Your task to perform on an android device: Go to accessibility settings Image 0: 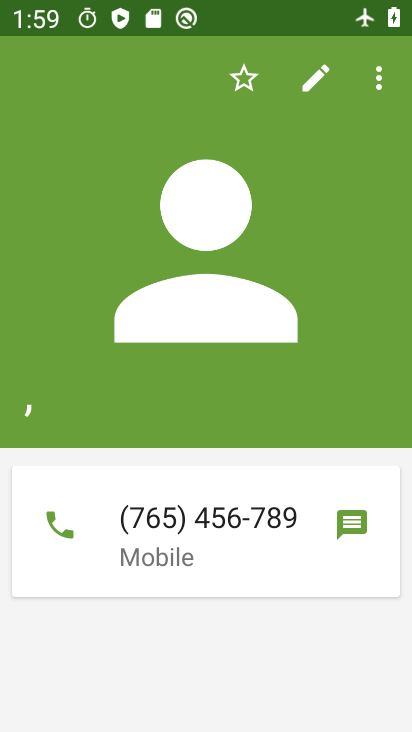
Step 0: press home button
Your task to perform on an android device: Go to accessibility settings Image 1: 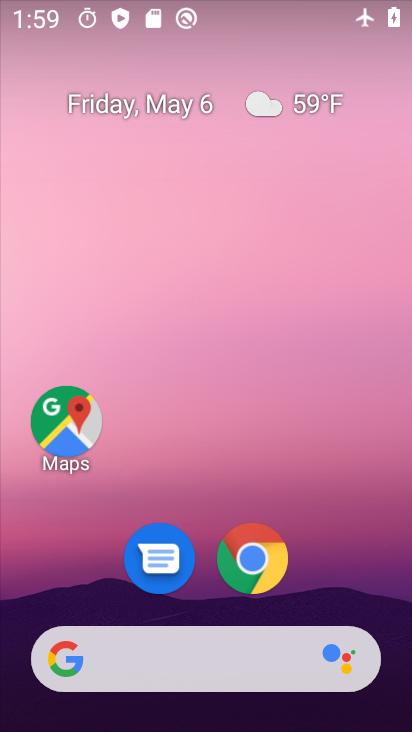
Step 1: drag from (210, 729) to (182, 222)
Your task to perform on an android device: Go to accessibility settings Image 2: 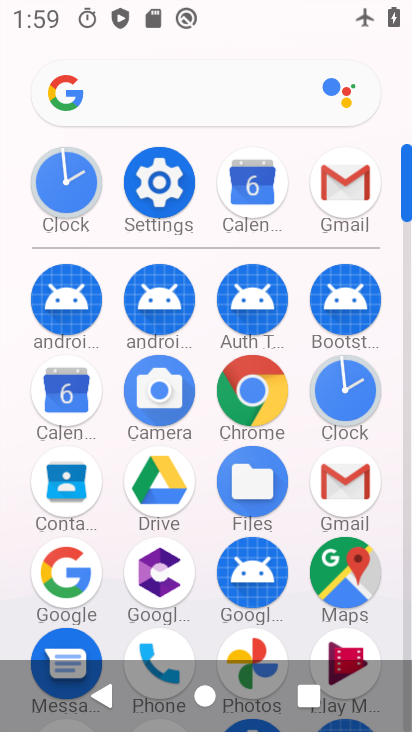
Step 2: click (171, 177)
Your task to perform on an android device: Go to accessibility settings Image 3: 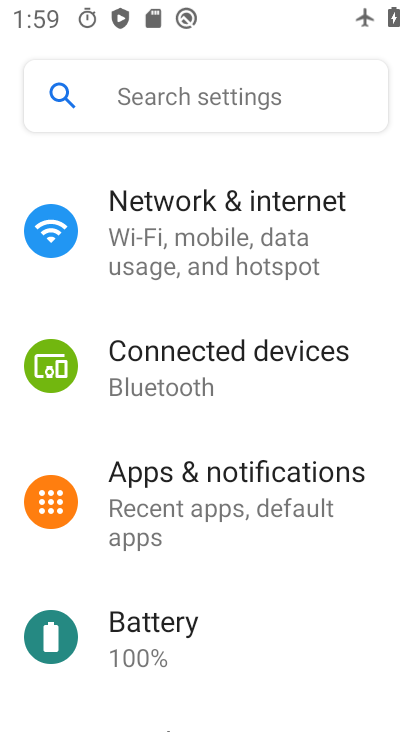
Step 3: drag from (170, 671) to (156, 339)
Your task to perform on an android device: Go to accessibility settings Image 4: 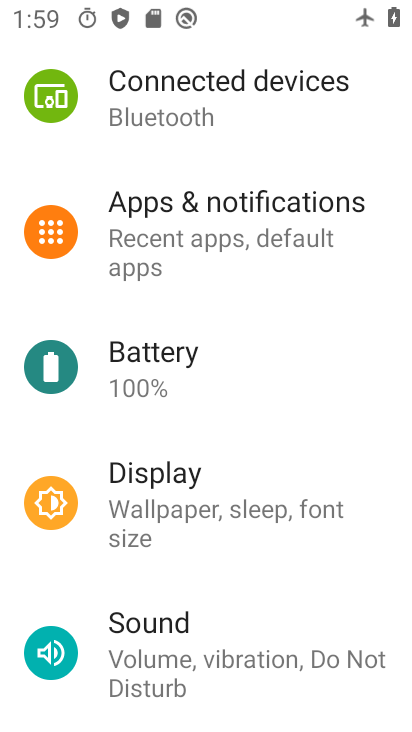
Step 4: drag from (187, 692) to (182, 346)
Your task to perform on an android device: Go to accessibility settings Image 5: 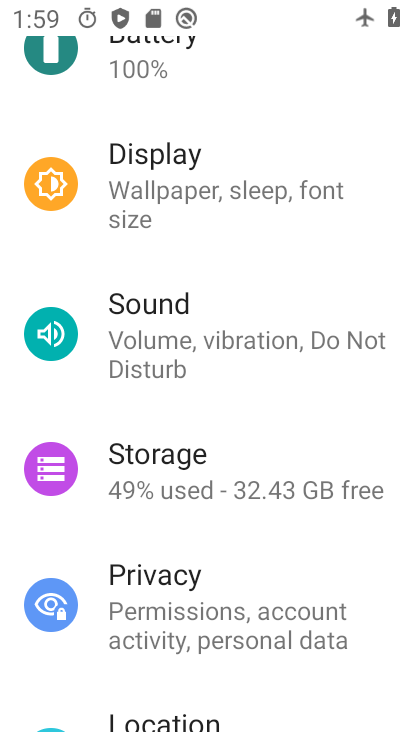
Step 5: drag from (188, 676) to (177, 319)
Your task to perform on an android device: Go to accessibility settings Image 6: 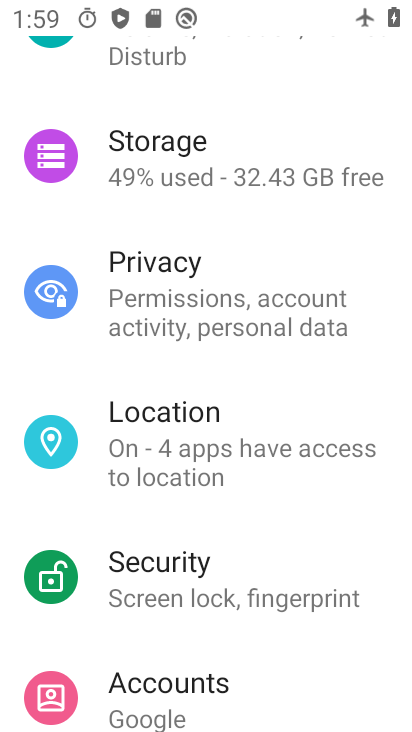
Step 6: drag from (184, 648) to (173, 326)
Your task to perform on an android device: Go to accessibility settings Image 7: 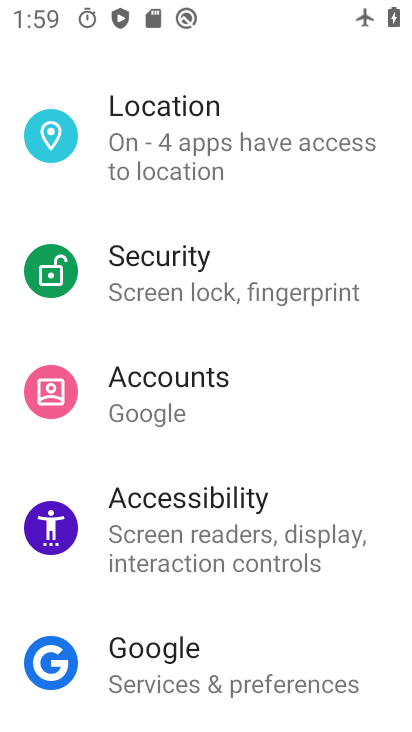
Step 7: click (185, 561)
Your task to perform on an android device: Go to accessibility settings Image 8: 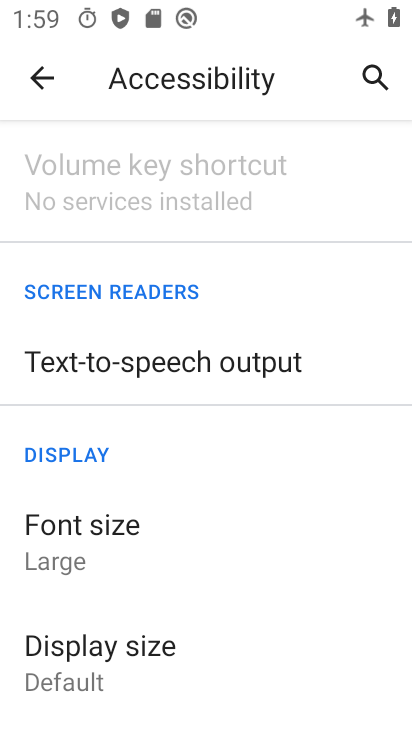
Step 8: task complete